Your task to perform on an android device: delete the emails in spam in the gmail app Image 0: 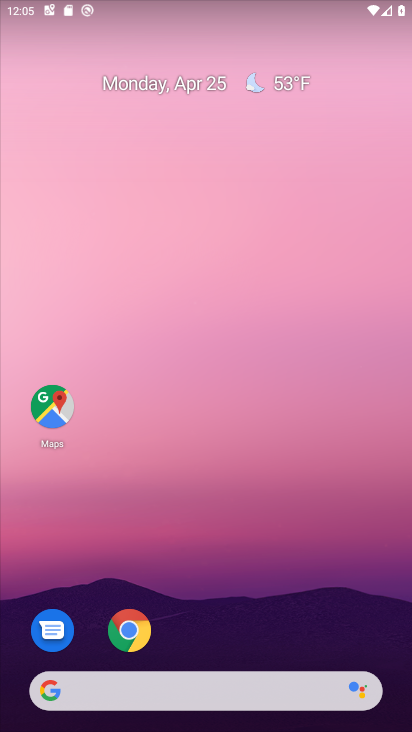
Step 0: drag from (224, 597) to (247, 166)
Your task to perform on an android device: delete the emails in spam in the gmail app Image 1: 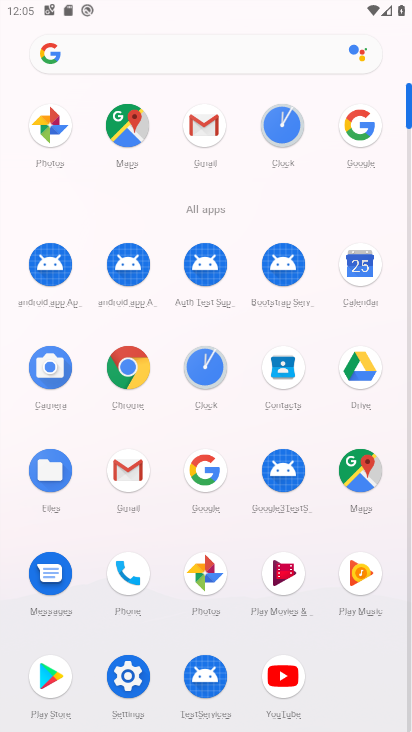
Step 1: click (122, 478)
Your task to perform on an android device: delete the emails in spam in the gmail app Image 2: 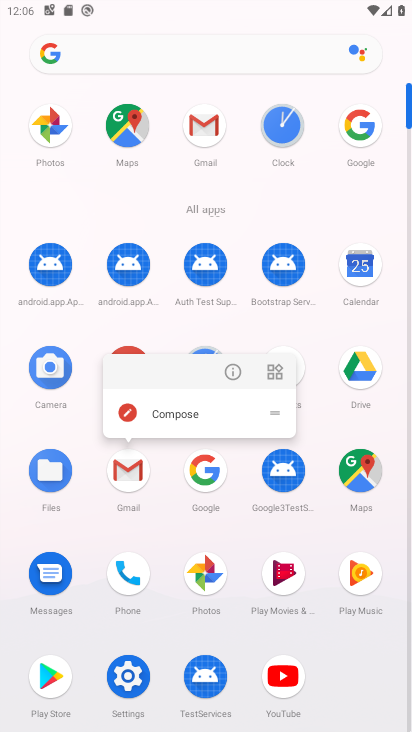
Step 2: click (228, 367)
Your task to perform on an android device: delete the emails in spam in the gmail app Image 3: 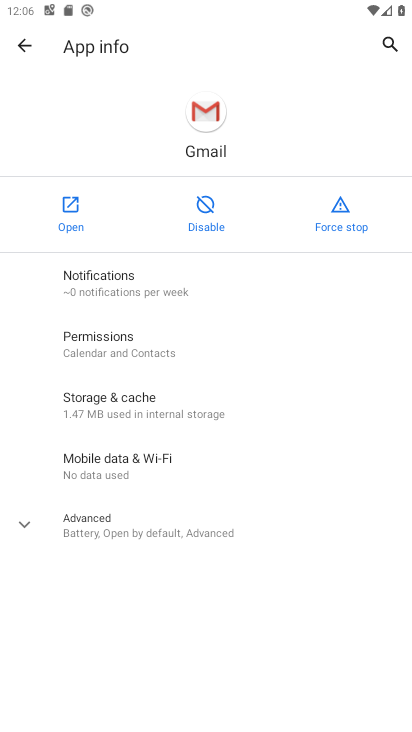
Step 3: click (72, 215)
Your task to perform on an android device: delete the emails in spam in the gmail app Image 4: 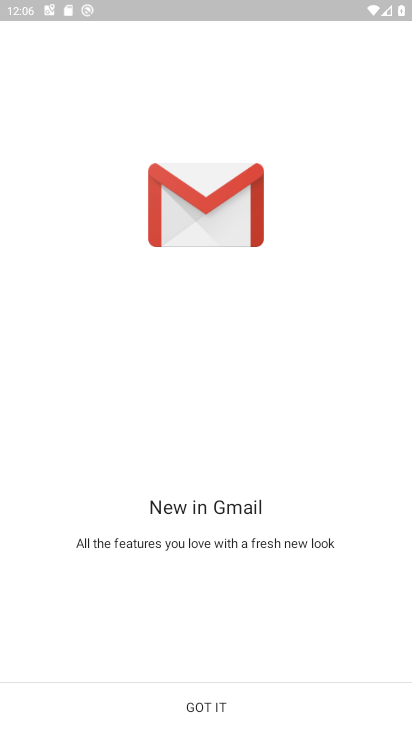
Step 4: click (218, 692)
Your task to perform on an android device: delete the emails in spam in the gmail app Image 5: 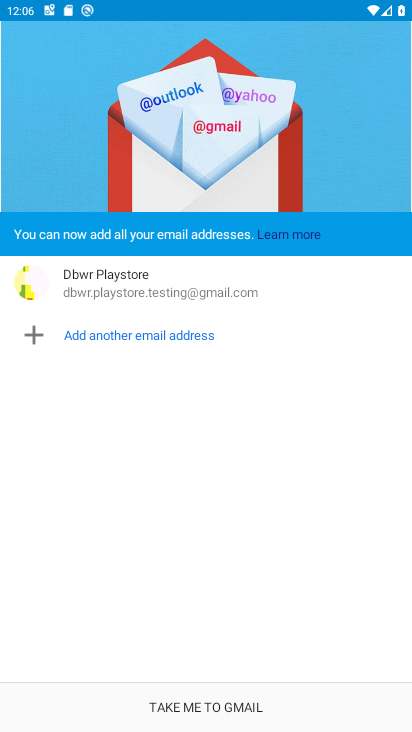
Step 5: click (180, 708)
Your task to perform on an android device: delete the emails in spam in the gmail app Image 6: 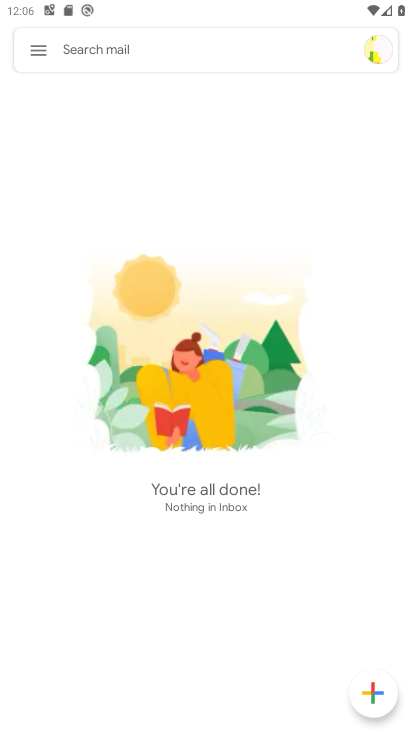
Step 6: click (30, 48)
Your task to perform on an android device: delete the emails in spam in the gmail app Image 7: 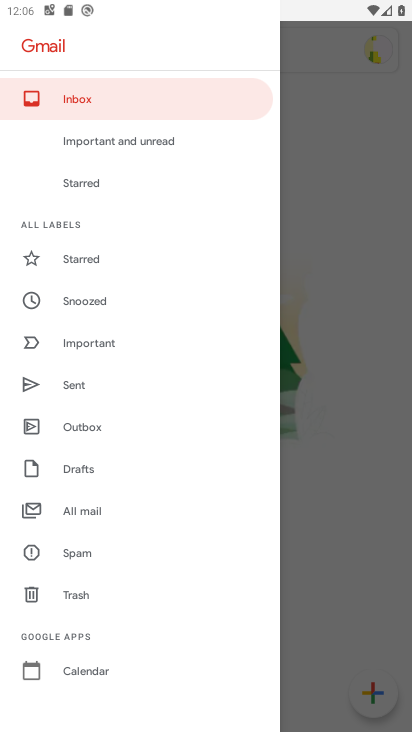
Step 7: click (106, 568)
Your task to perform on an android device: delete the emails in spam in the gmail app Image 8: 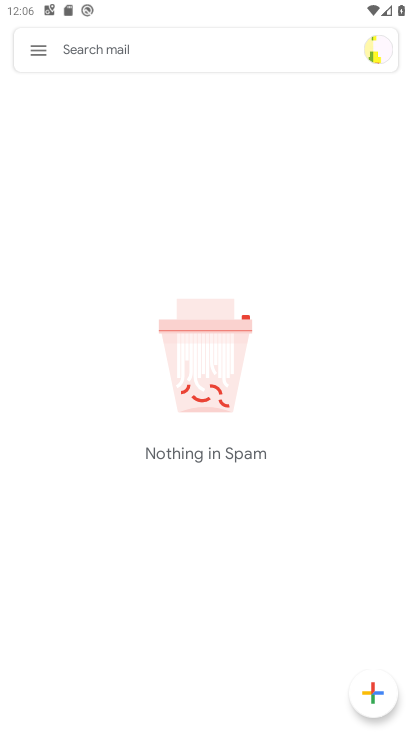
Step 8: task complete